Your task to perform on an android device: What is the recent news? Image 0: 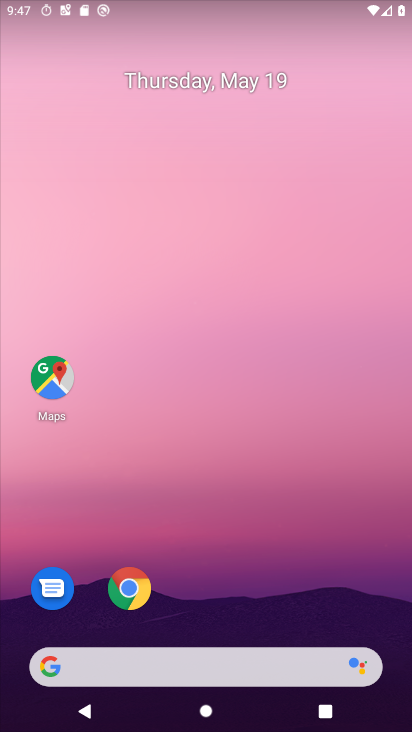
Step 0: press home button
Your task to perform on an android device: What is the recent news? Image 1: 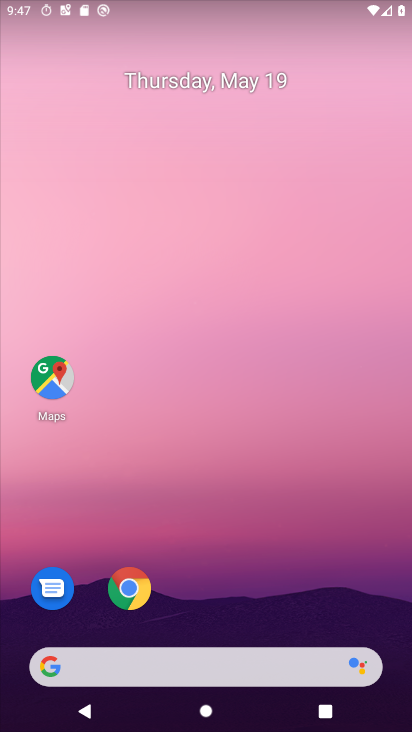
Step 1: click (54, 672)
Your task to perform on an android device: What is the recent news? Image 2: 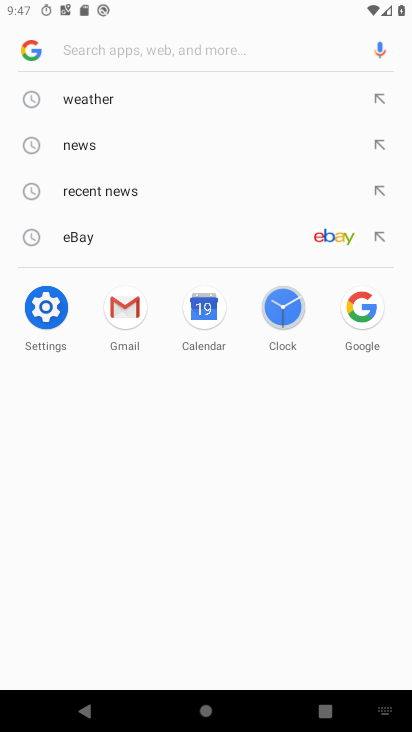
Step 2: click (75, 190)
Your task to perform on an android device: What is the recent news? Image 3: 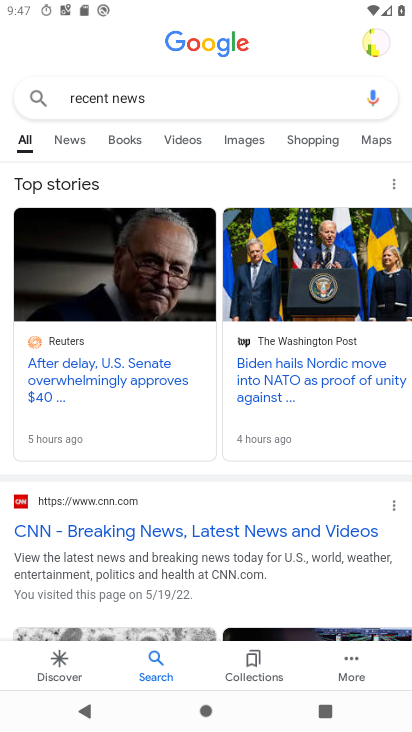
Step 3: click (72, 137)
Your task to perform on an android device: What is the recent news? Image 4: 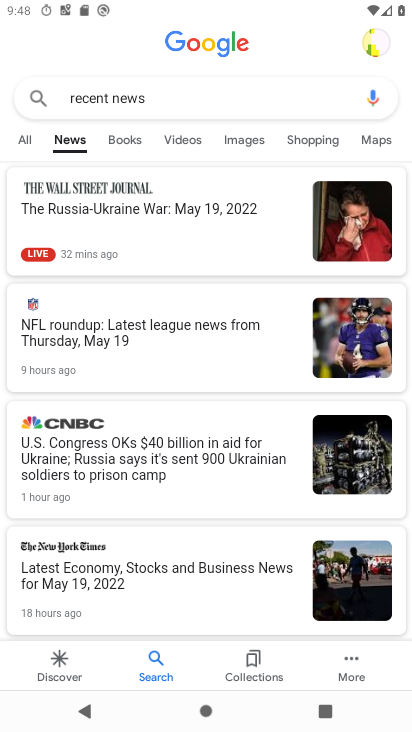
Step 4: task complete